Your task to perform on an android device: When is my next appointment? Image 0: 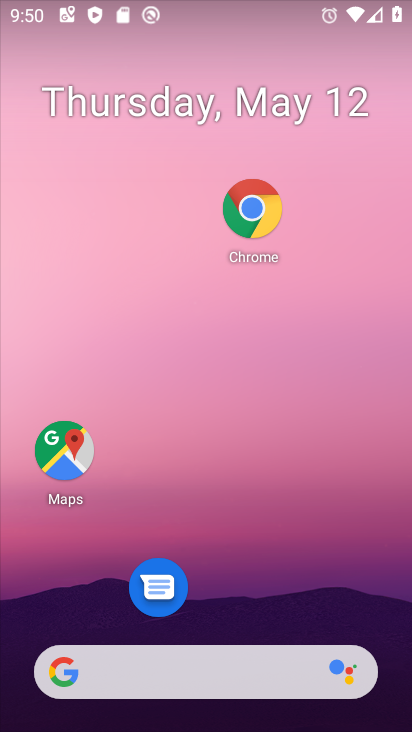
Step 0: drag from (282, 464) to (277, 237)
Your task to perform on an android device: When is my next appointment? Image 1: 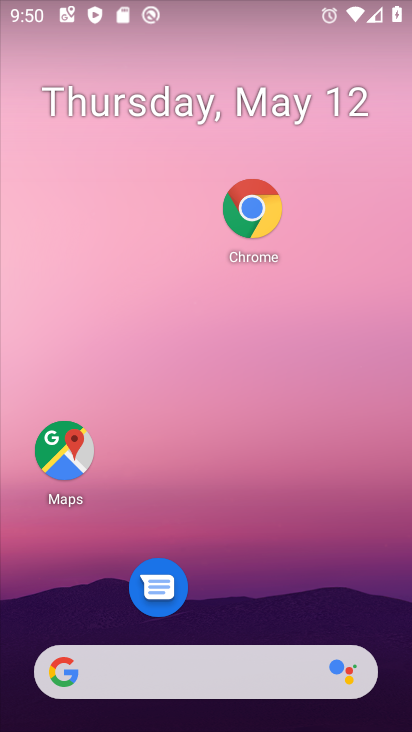
Step 1: drag from (293, 566) to (330, 243)
Your task to perform on an android device: When is my next appointment? Image 2: 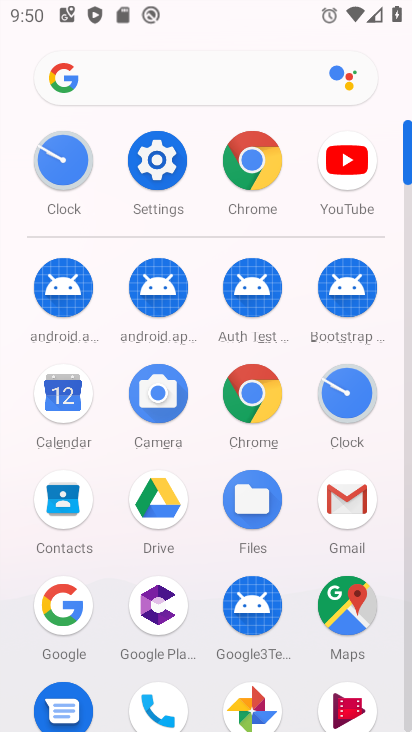
Step 2: click (52, 396)
Your task to perform on an android device: When is my next appointment? Image 3: 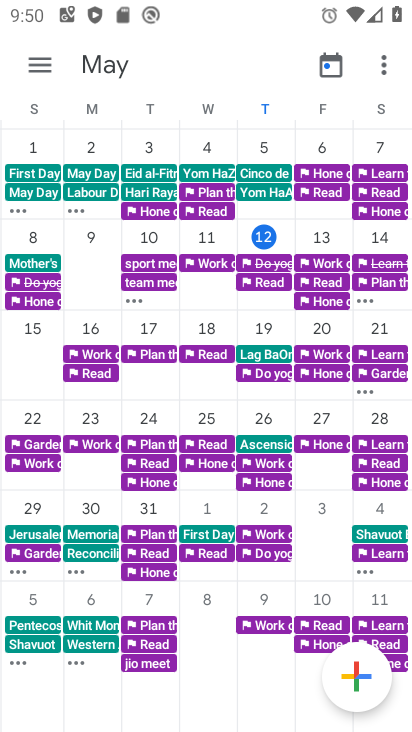
Step 3: drag from (317, 242) to (350, 275)
Your task to perform on an android device: When is my next appointment? Image 4: 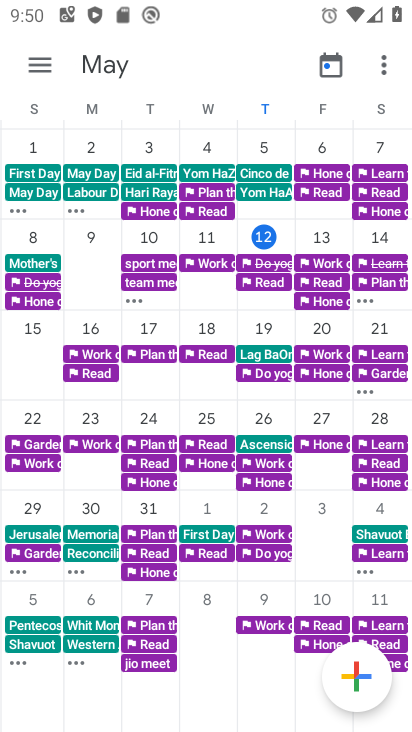
Step 4: click (370, 245)
Your task to perform on an android device: When is my next appointment? Image 5: 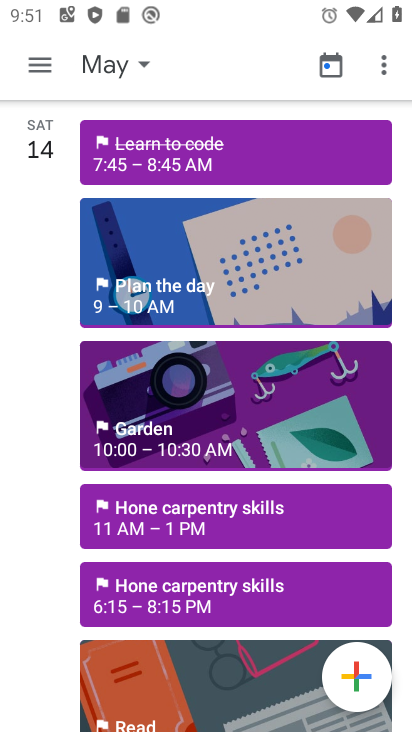
Step 5: task complete